Your task to perform on an android device: turn on improve location accuracy Image 0: 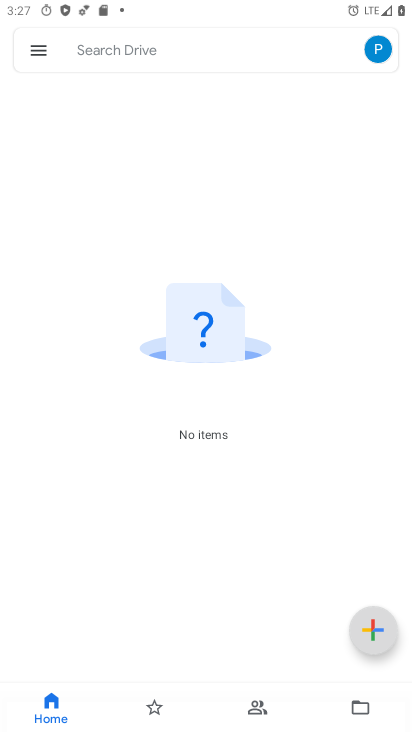
Step 0: press home button
Your task to perform on an android device: turn on improve location accuracy Image 1: 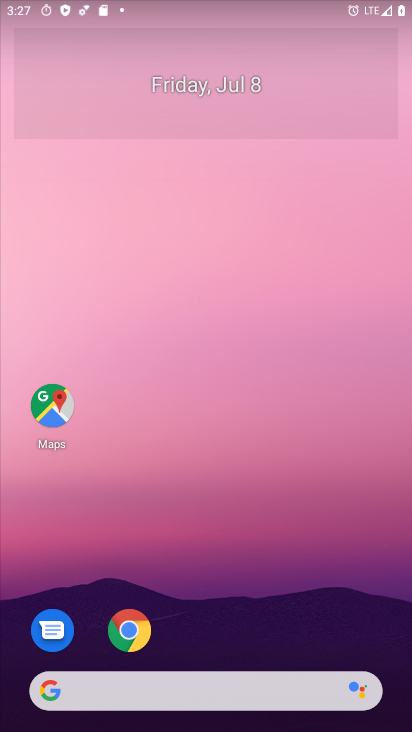
Step 1: drag from (299, 538) to (270, 104)
Your task to perform on an android device: turn on improve location accuracy Image 2: 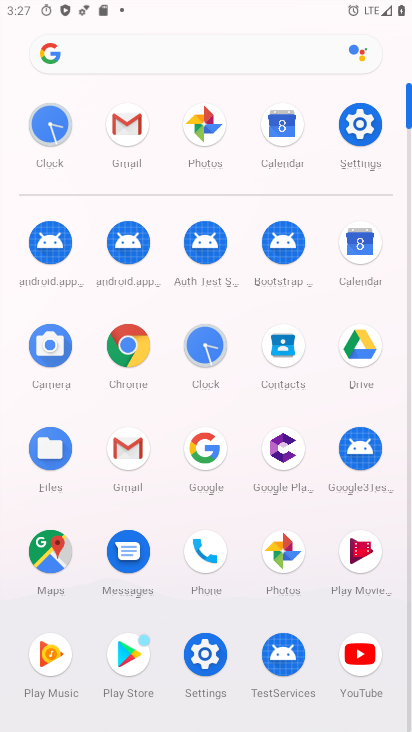
Step 2: click (359, 128)
Your task to perform on an android device: turn on improve location accuracy Image 3: 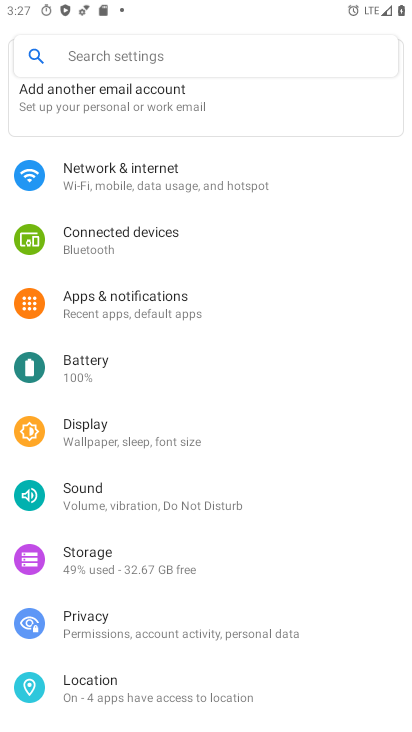
Step 3: click (84, 689)
Your task to perform on an android device: turn on improve location accuracy Image 4: 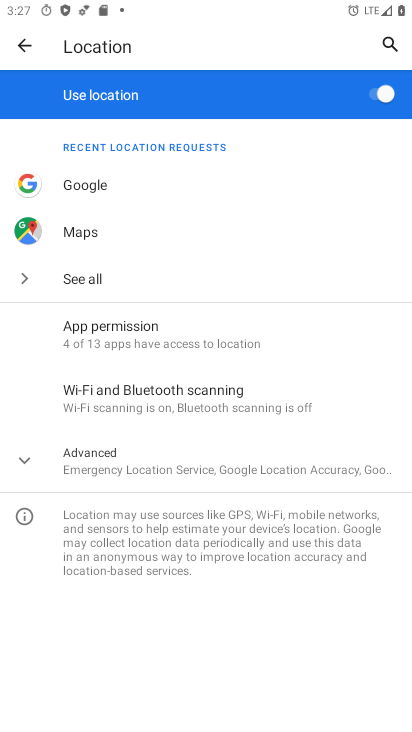
Step 4: click (91, 466)
Your task to perform on an android device: turn on improve location accuracy Image 5: 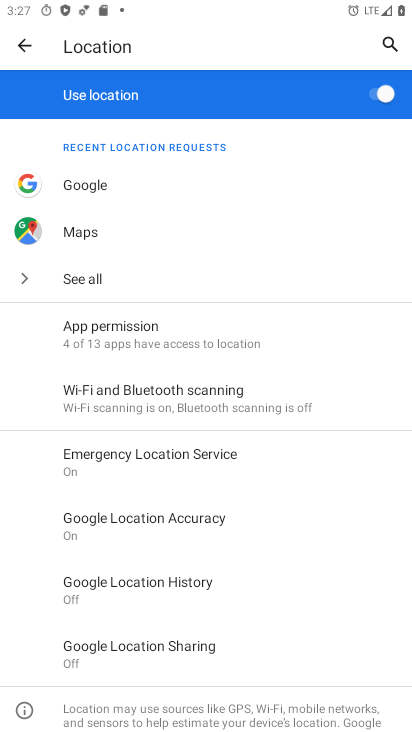
Step 5: task complete